Your task to perform on an android device: toggle improve location accuracy Image 0: 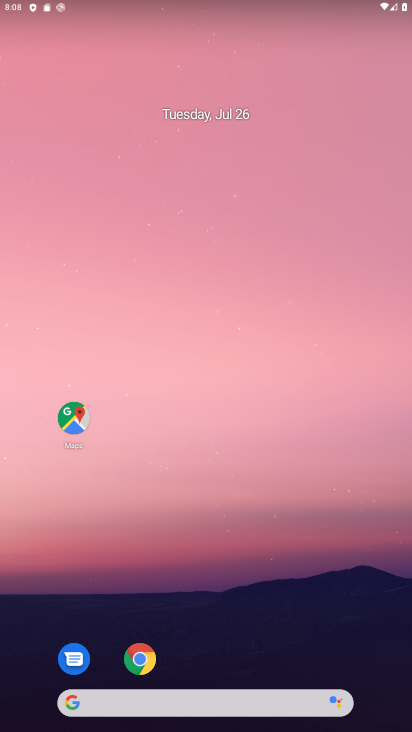
Step 0: drag from (363, 646) to (330, 36)
Your task to perform on an android device: toggle improve location accuracy Image 1: 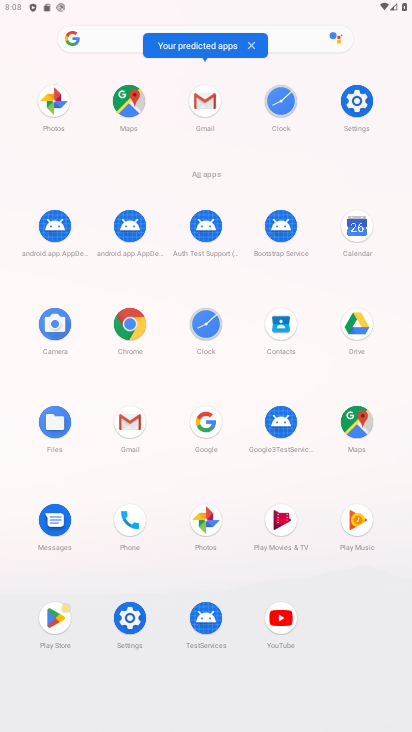
Step 1: click (125, 619)
Your task to perform on an android device: toggle improve location accuracy Image 2: 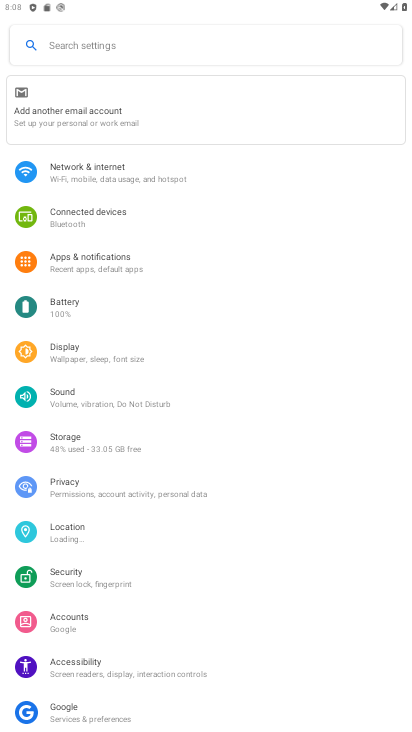
Step 2: click (57, 528)
Your task to perform on an android device: toggle improve location accuracy Image 3: 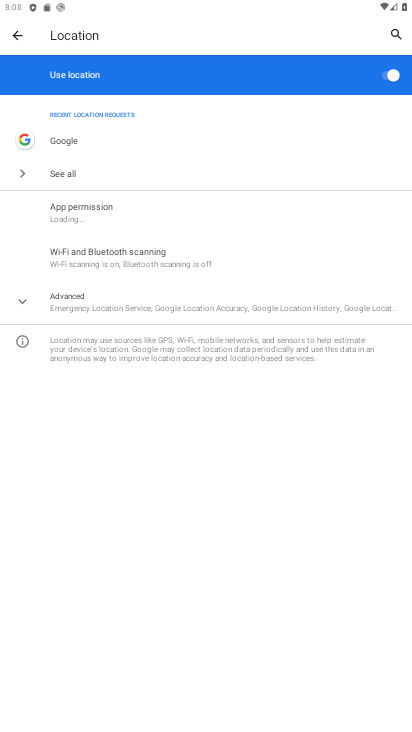
Step 3: click (23, 299)
Your task to perform on an android device: toggle improve location accuracy Image 4: 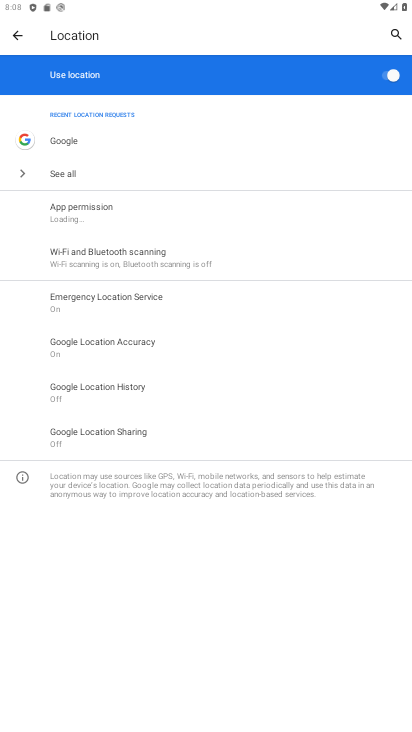
Step 4: click (101, 341)
Your task to perform on an android device: toggle improve location accuracy Image 5: 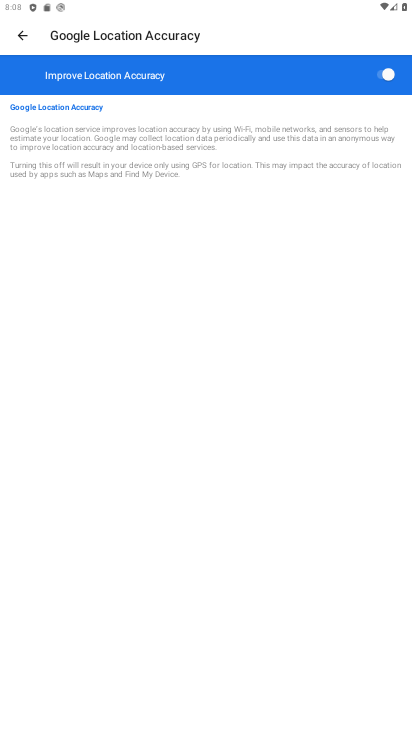
Step 5: click (382, 73)
Your task to perform on an android device: toggle improve location accuracy Image 6: 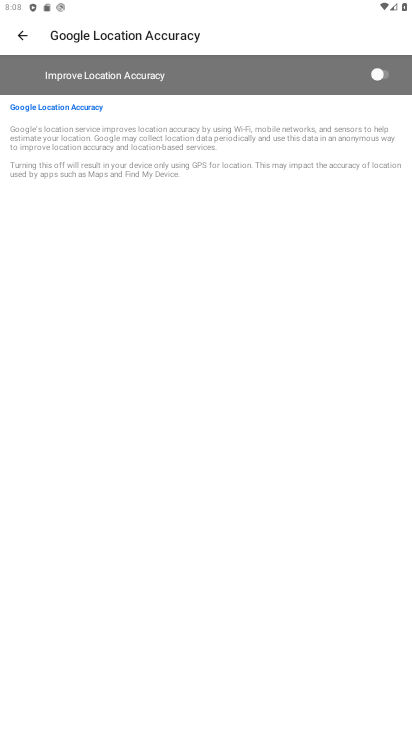
Step 6: task complete